Your task to perform on an android device: Open my contact list Image 0: 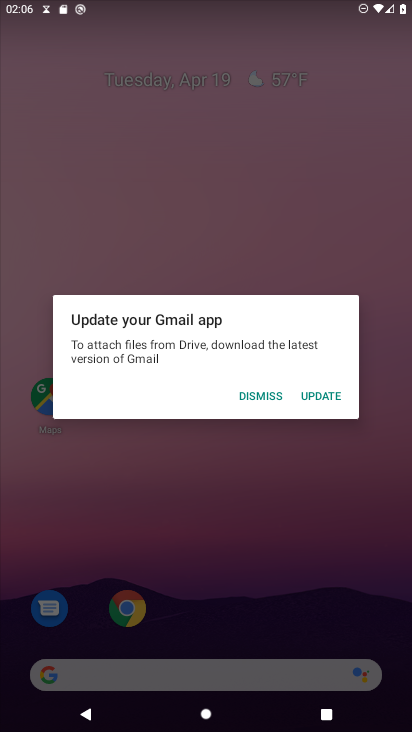
Step 0: press home button
Your task to perform on an android device: Open my contact list Image 1: 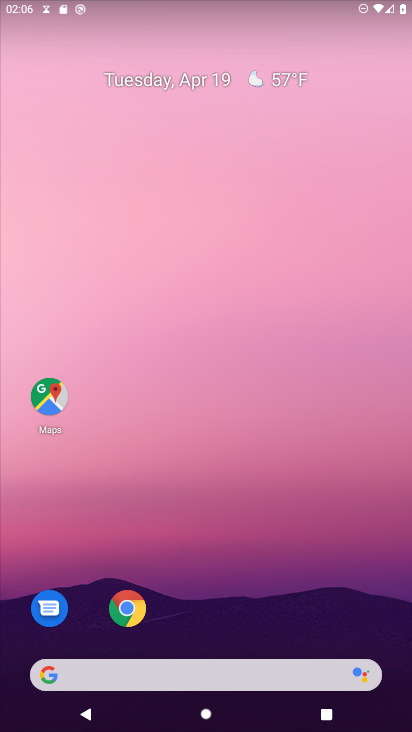
Step 1: drag from (228, 567) to (186, 172)
Your task to perform on an android device: Open my contact list Image 2: 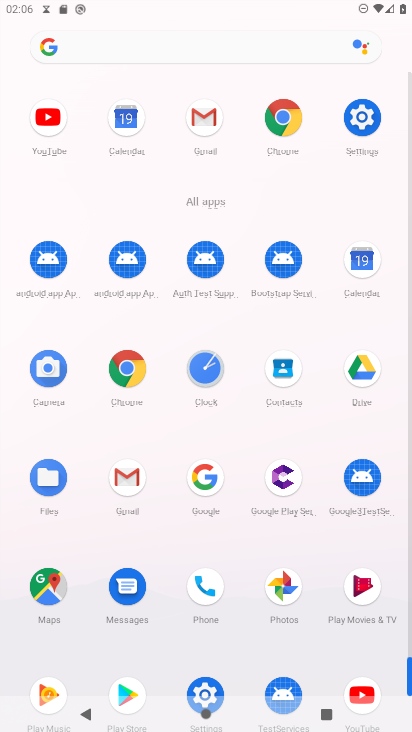
Step 2: click (280, 374)
Your task to perform on an android device: Open my contact list Image 3: 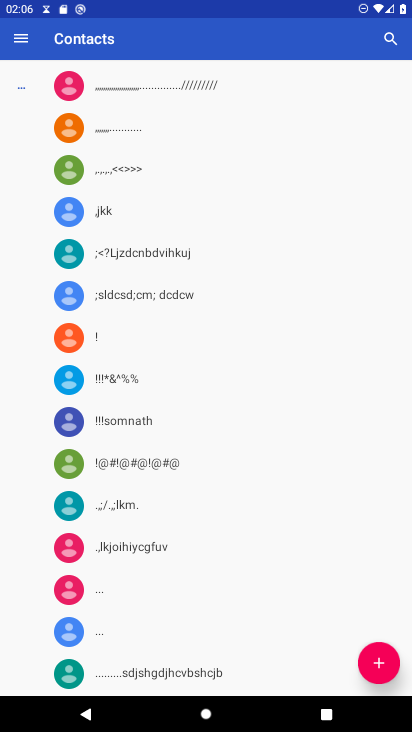
Step 3: task complete